Your task to perform on an android device: Open the calendar app, open the side menu, and click the "Day" option Image 0: 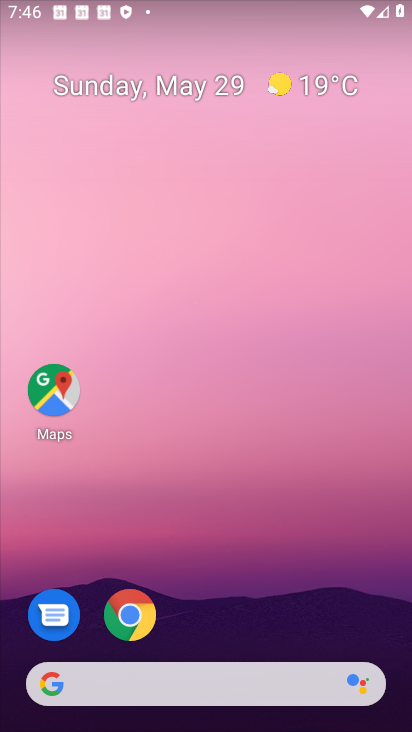
Step 0: drag from (100, 729) to (196, 0)
Your task to perform on an android device: Open the calendar app, open the side menu, and click the "Day" option Image 1: 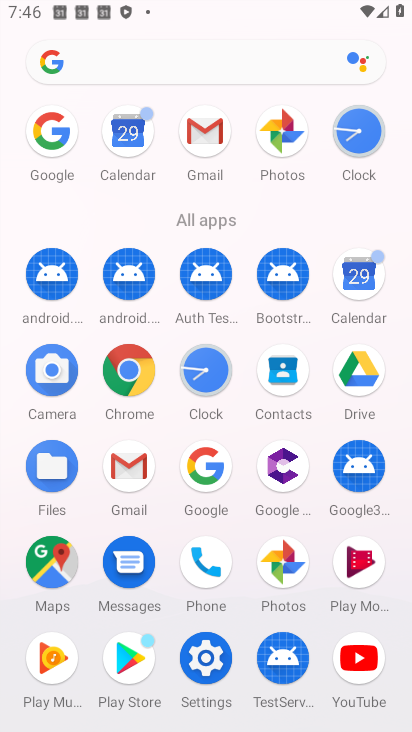
Step 1: click (359, 281)
Your task to perform on an android device: Open the calendar app, open the side menu, and click the "Day" option Image 2: 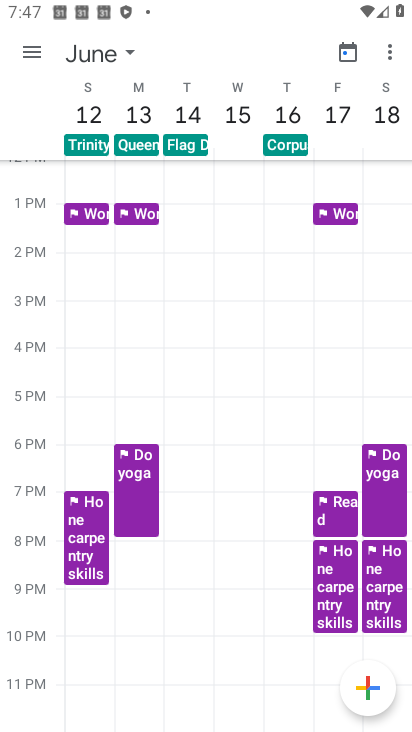
Step 2: click (20, 50)
Your task to perform on an android device: Open the calendar app, open the side menu, and click the "Day" option Image 3: 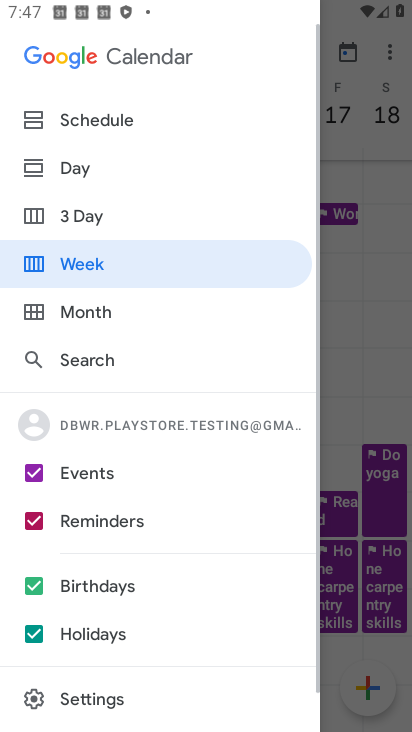
Step 3: click (82, 171)
Your task to perform on an android device: Open the calendar app, open the side menu, and click the "Day" option Image 4: 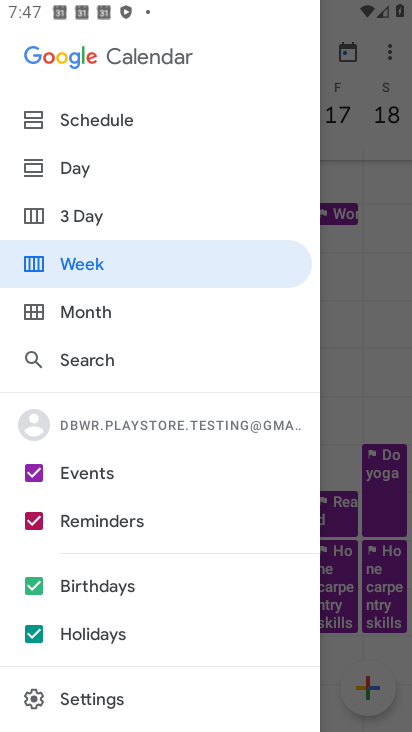
Step 4: click (82, 166)
Your task to perform on an android device: Open the calendar app, open the side menu, and click the "Day" option Image 5: 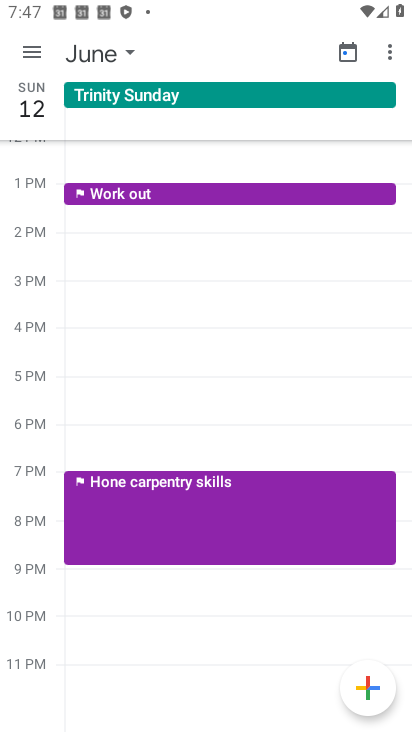
Step 5: click (132, 56)
Your task to perform on an android device: Open the calendar app, open the side menu, and click the "Day" option Image 6: 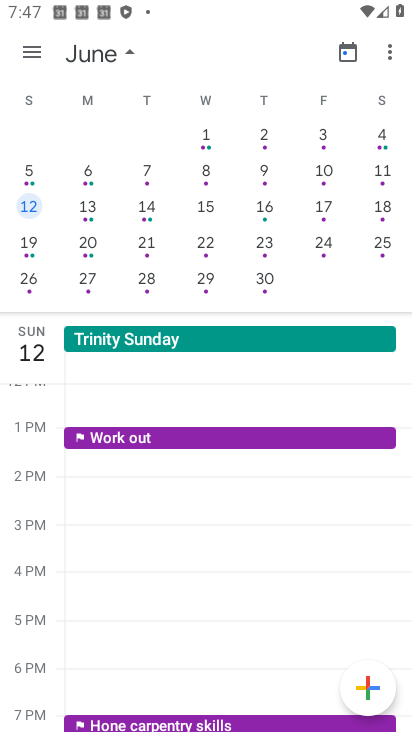
Step 6: drag from (30, 128) to (393, 366)
Your task to perform on an android device: Open the calendar app, open the side menu, and click the "Day" option Image 7: 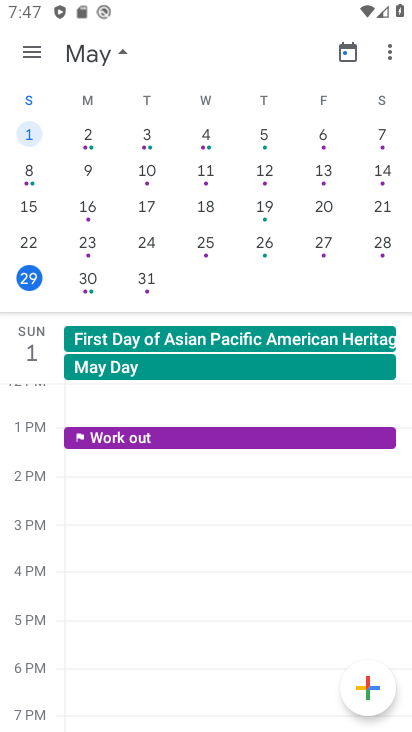
Step 7: click (29, 285)
Your task to perform on an android device: Open the calendar app, open the side menu, and click the "Day" option Image 8: 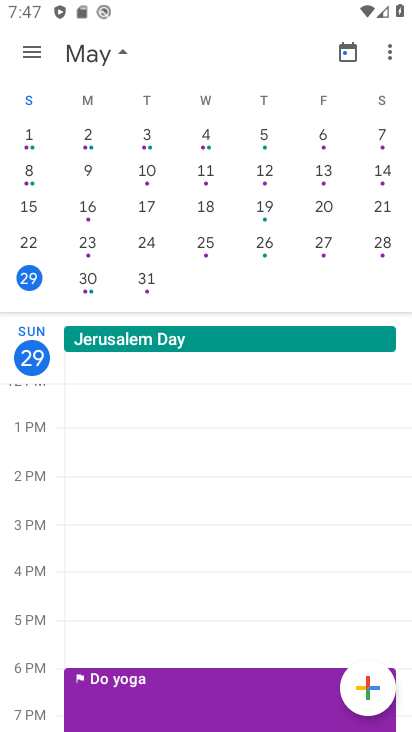
Step 8: click (122, 51)
Your task to perform on an android device: Open the calendar app, open the side menu, and click the "Day" option Image 9: 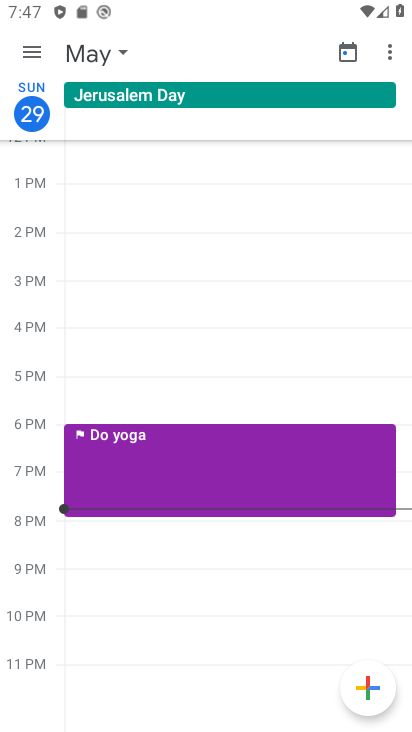
Step 9: task complete